Your task to perform on an android device: Go to eBay Image 0: 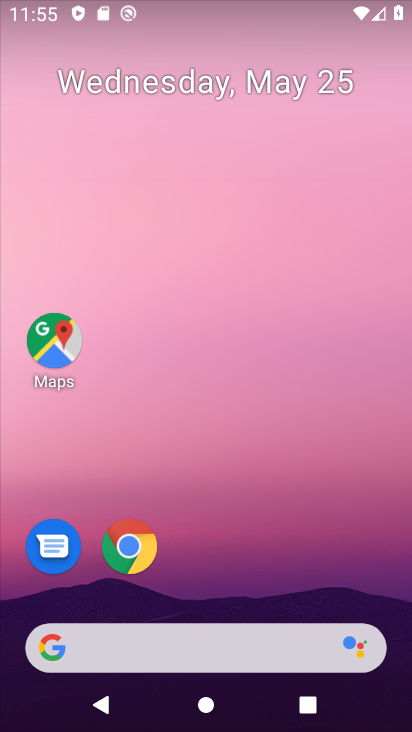
Step 0: click (305, 86)
Your task to perform on an android device: Go to eBay Image 1: 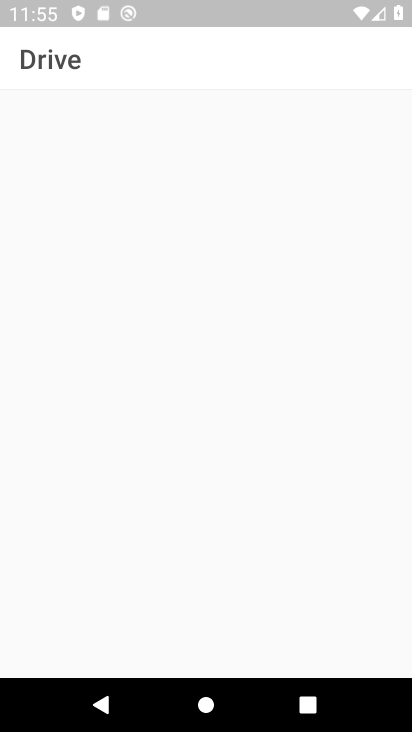
Step 1: press home button
Your task to perform on an android device: Go to eBay Image 2: 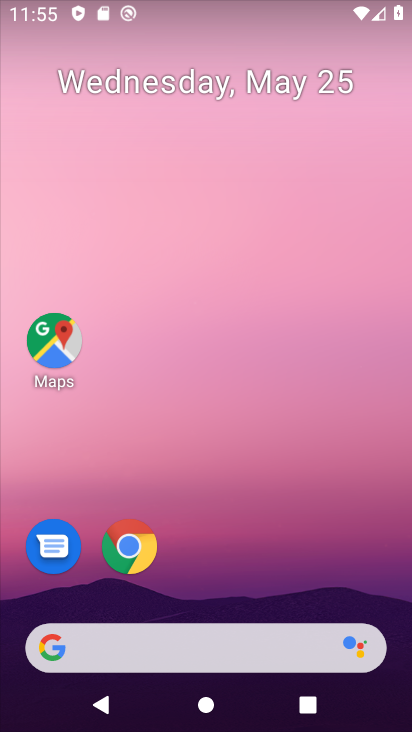
Step 2: drag from (388, 595) to (158, 43)
Your task to perform on an android device: Go to eBay Image 3: 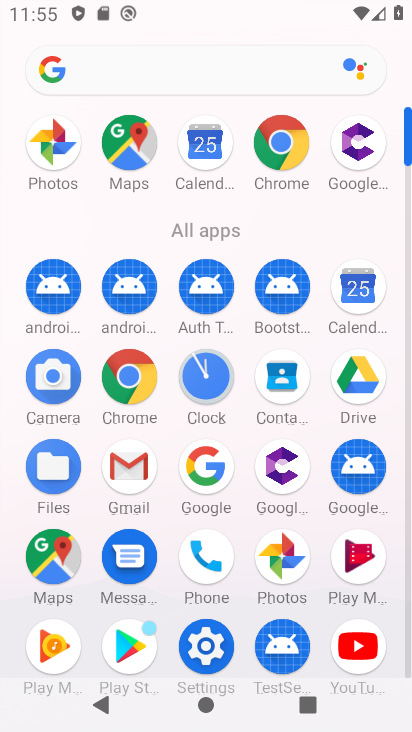
Step 3: click (202, 473)
Your task to perform on an android device: Go to eBay Image 4: 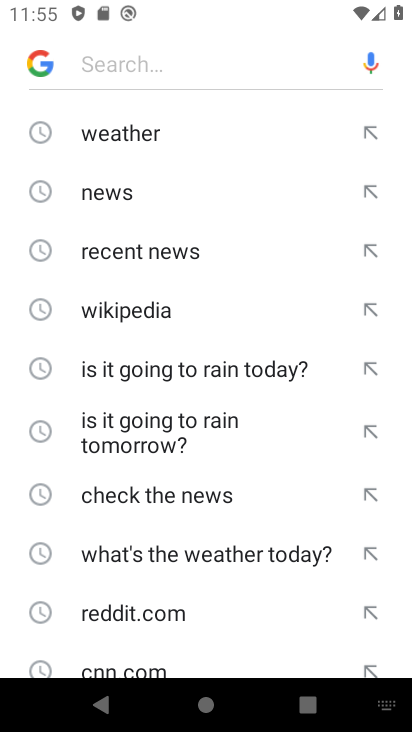
Step 4: drag from (137, 608) to (182, 273)
Your task to perform on an android device: Go to eBay Image 5: 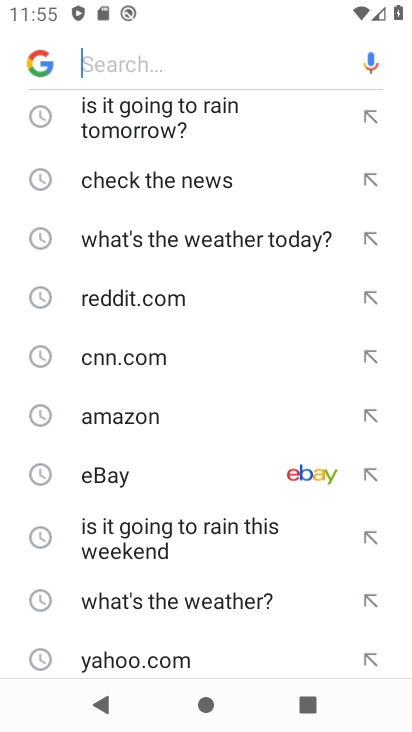
Step 5: click (111, 475)
Your task to perform on an android device: Go to eBay Image 6: 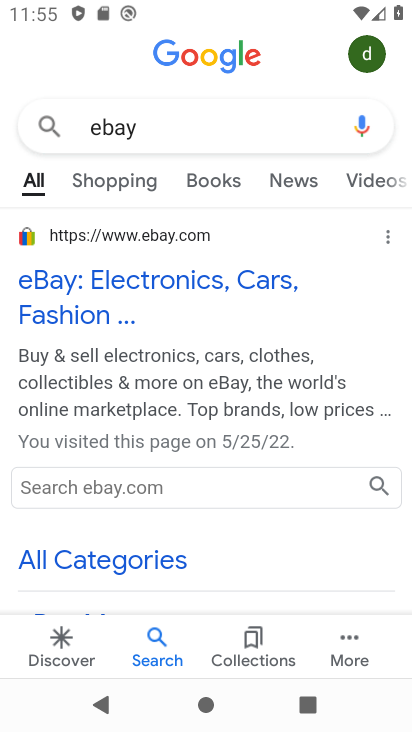
Step 6: task complete